Your task to perform on an android device: add a contact Image 0: 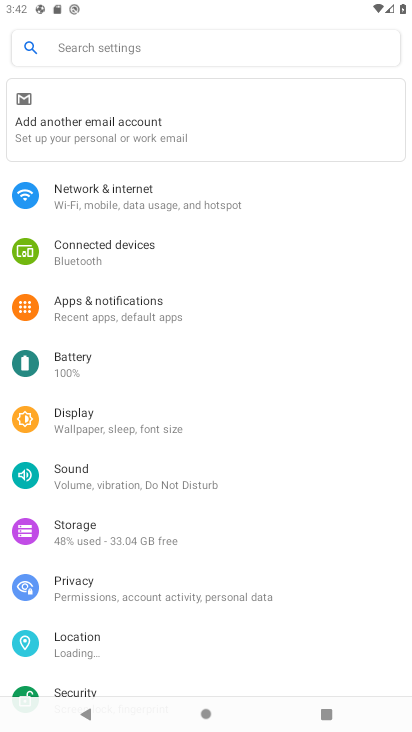
Step 0: press home button
Your task to perform on an android device: add a contact Image 1: 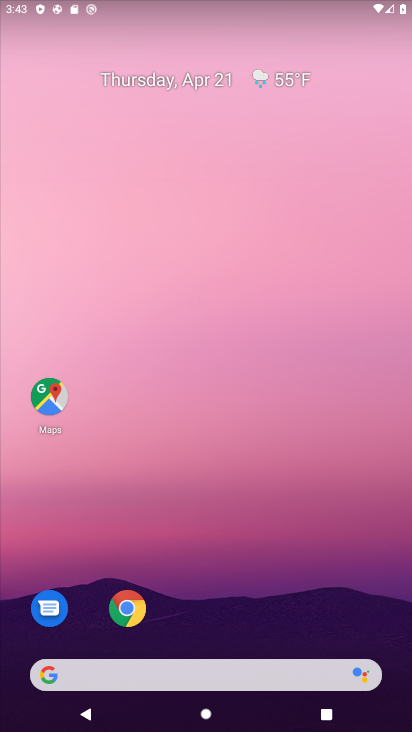
Step 1: drag from (297, 526) to (348, 197)
Your task to perform on an android device: add a contact Image 2: 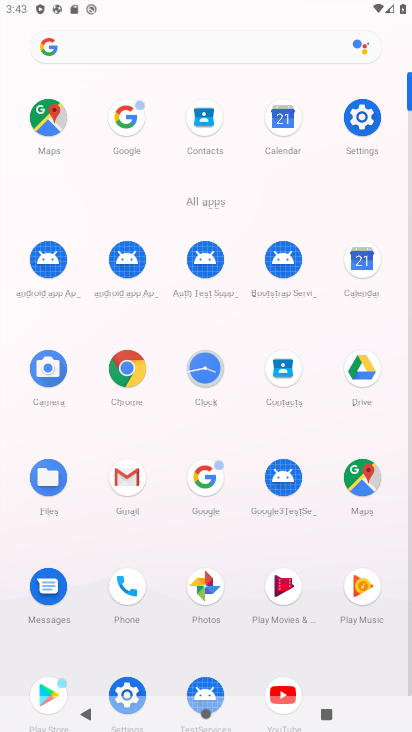
Step 2: click (286, 368)
Your task to perform on an android device: add a contact Image 3: 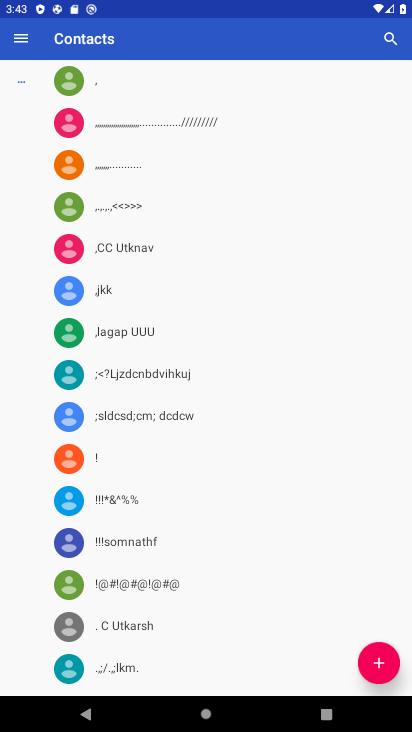
Step 3: click (366, 660)
Your task to perform on an android device: add a contact Image 4: 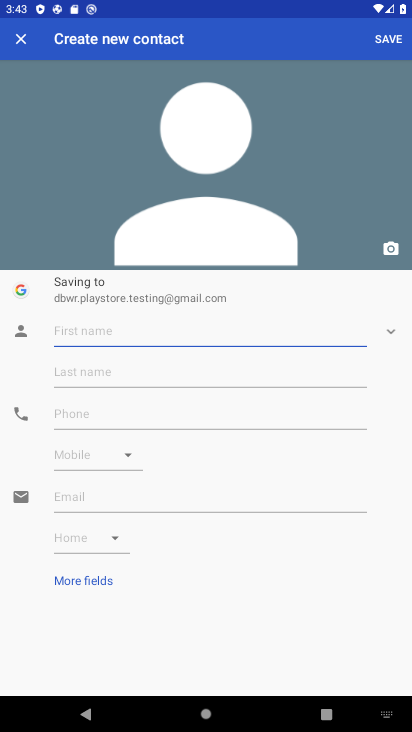
Step 4: type "ngisdnhoif"
Your task to perform on an android device: add a contact Image 5: 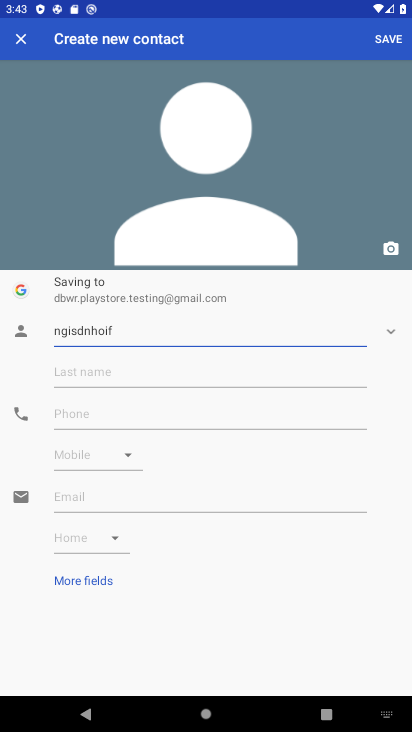
Step 5: click (319, 415)
Your task to perform on an android device: add a contact Image 6: 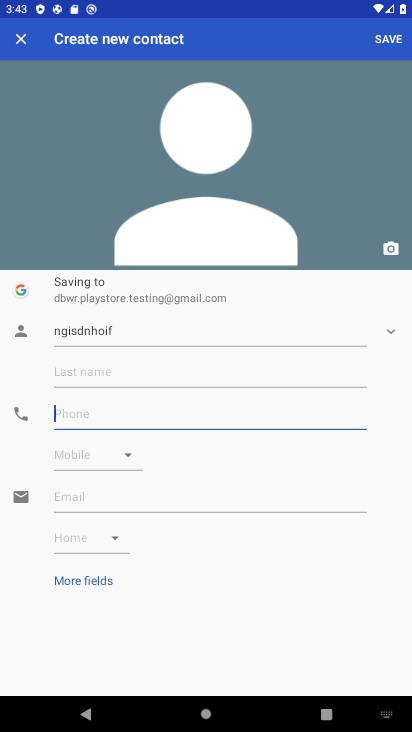
Step 6: type "43532535y"
Your task to perform on an android device: add a contact Image 7: 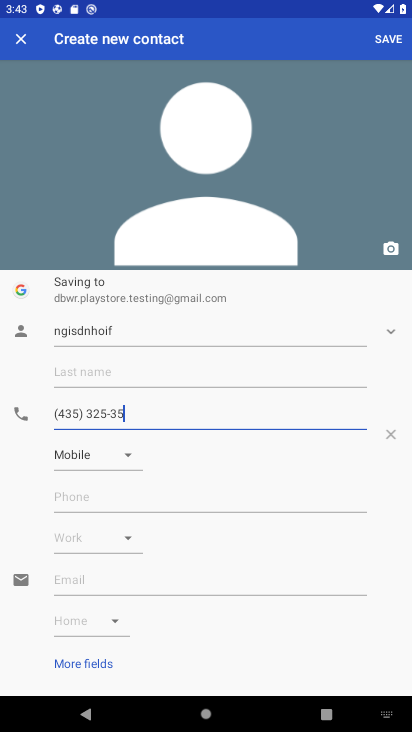
Step 7: click (388, 34)
Your task to perform on an android device: add a contact Image 8: 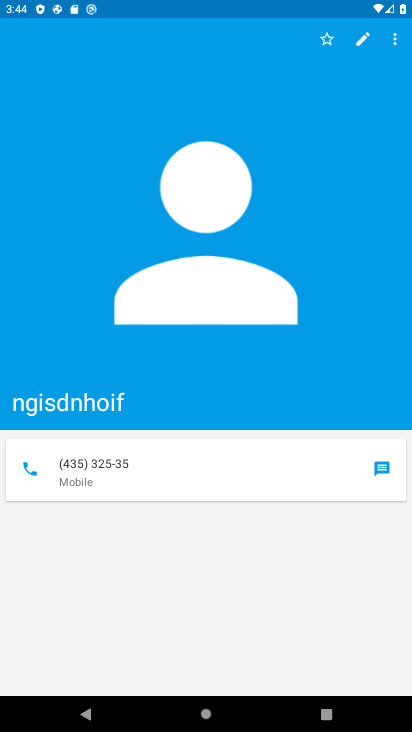
Step 8: task complete